Your task to perform on an android device: Open location settings Image 0: 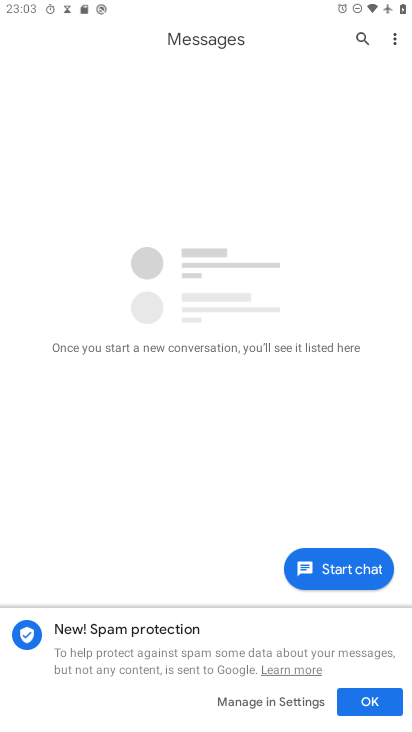
Step 0: press home button
Your task to perform on an android device: Open location settings Image 1: 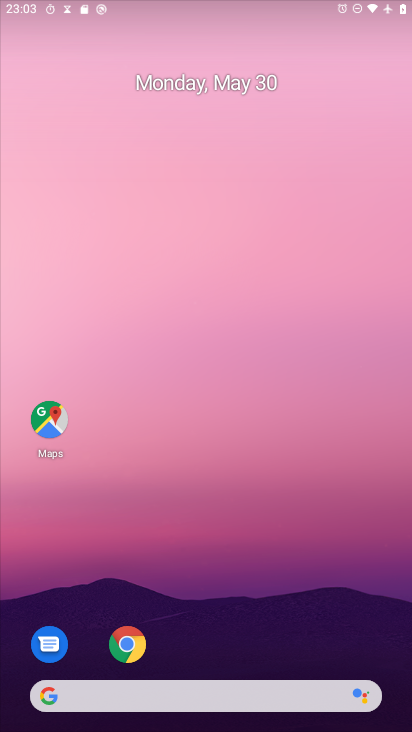
Step 1: drag from (196, 168) to (192, 26)
Your task to perform on an android device: Open location settings Image 2: 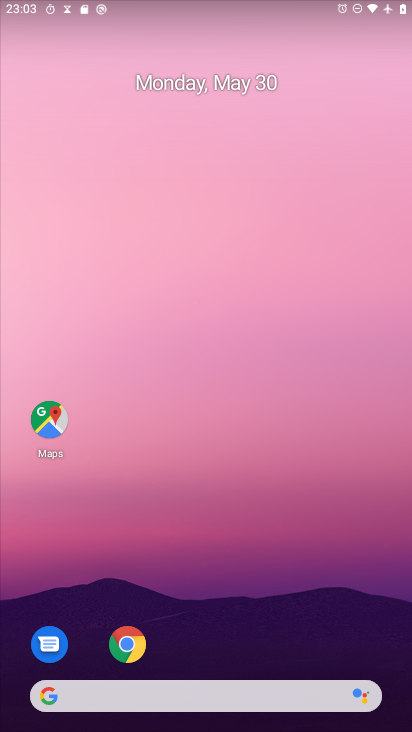
Step 2: drag from (239, 651) to (288, 42)
Your task to perform on an android device: Open location settings Image 3: 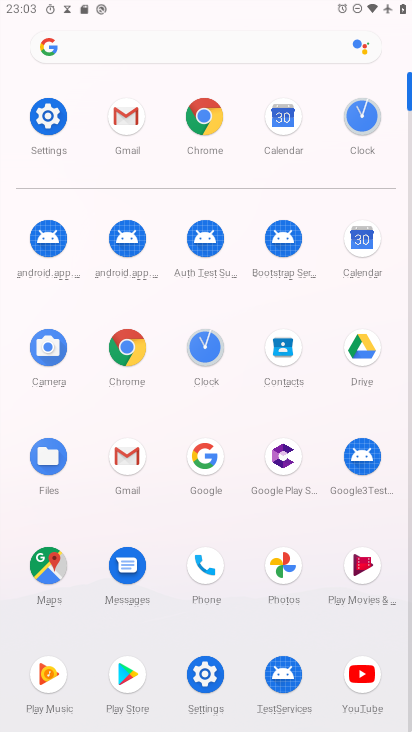
Step 3: click (46, 116)
Your task to perform on an android device: Open location settings Image 4: 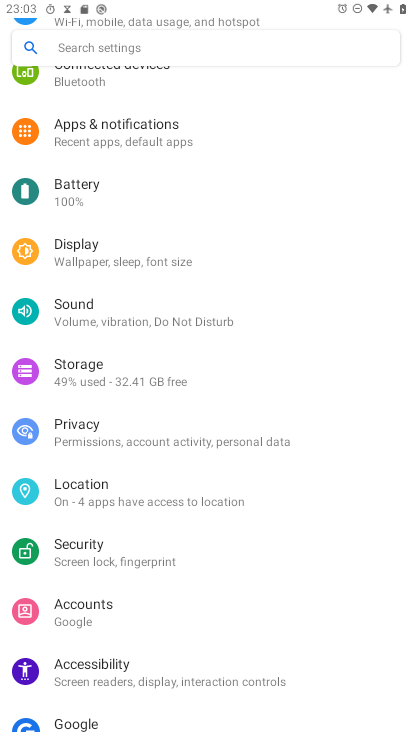
Step 4: click (70, 469)
Your task to perform on an android device: Open location settings Image 5: 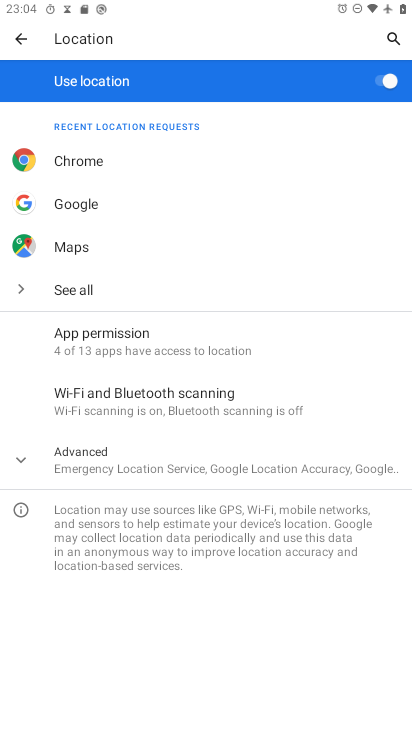
Step 5: task complete